Your task to perform on an android device: check google app version Image 0: 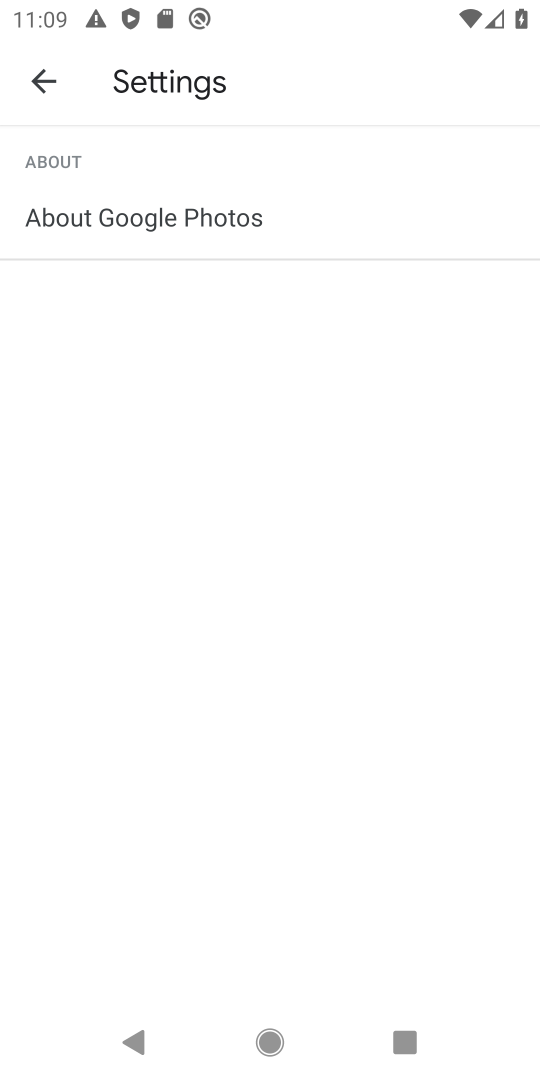
Step 0: press home button
Your task to perform on an android device: check google app version Image 1: 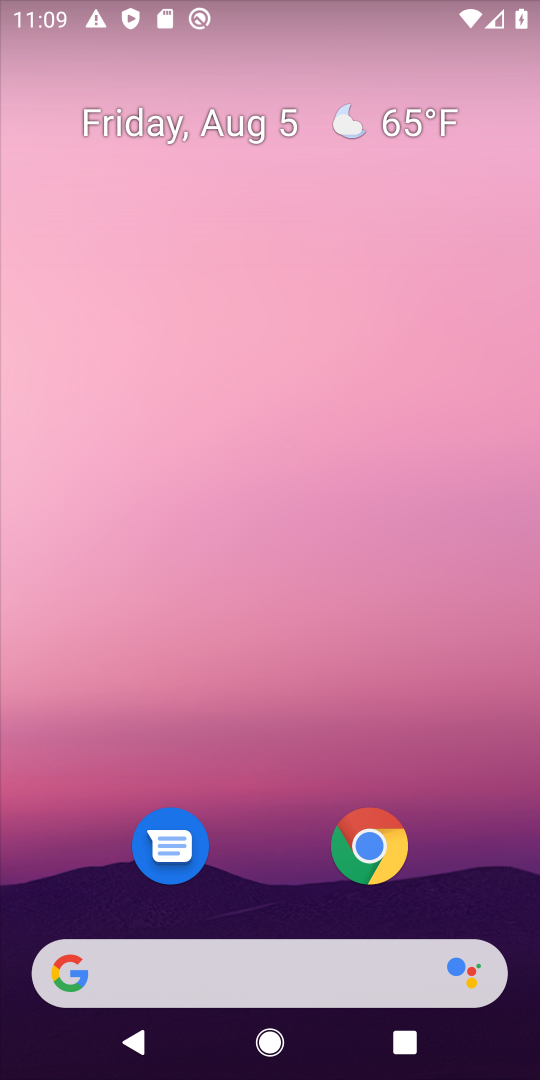
Step 1: click (259, 980)
Your task to perform on an android device: check google app version Image 2: 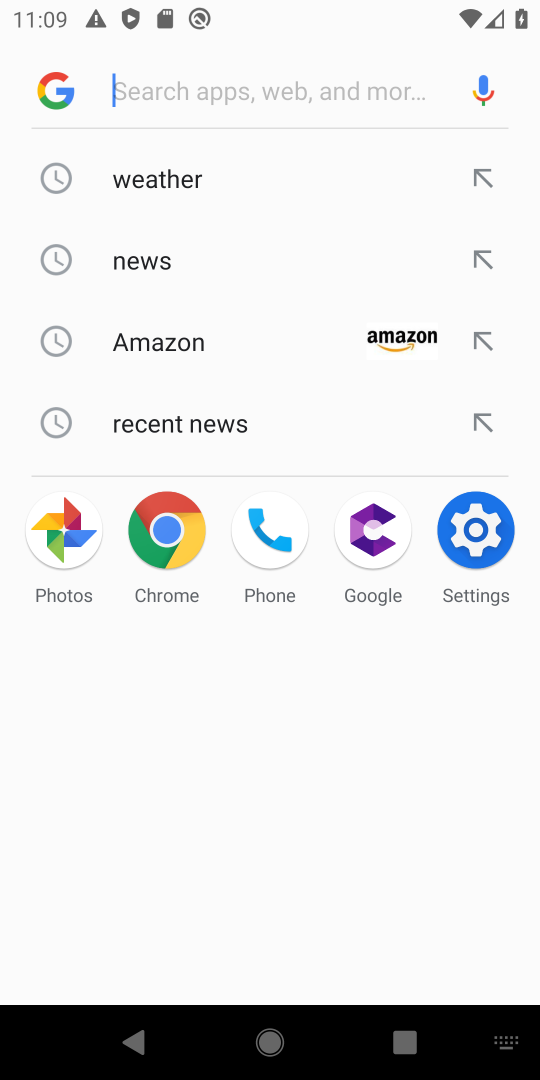
Step 2: click (46, 84)
Your task to perform on an android device: check google app version Image 3: 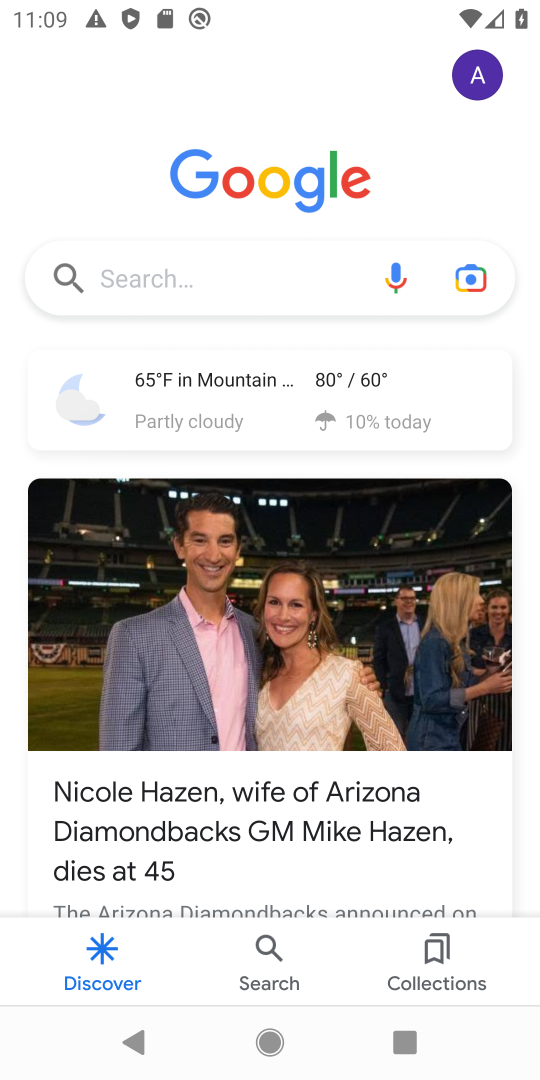
Step 3: drag from (373, 964) to (198, 958)
Your task to perform on an android device: check google app version Image 4: 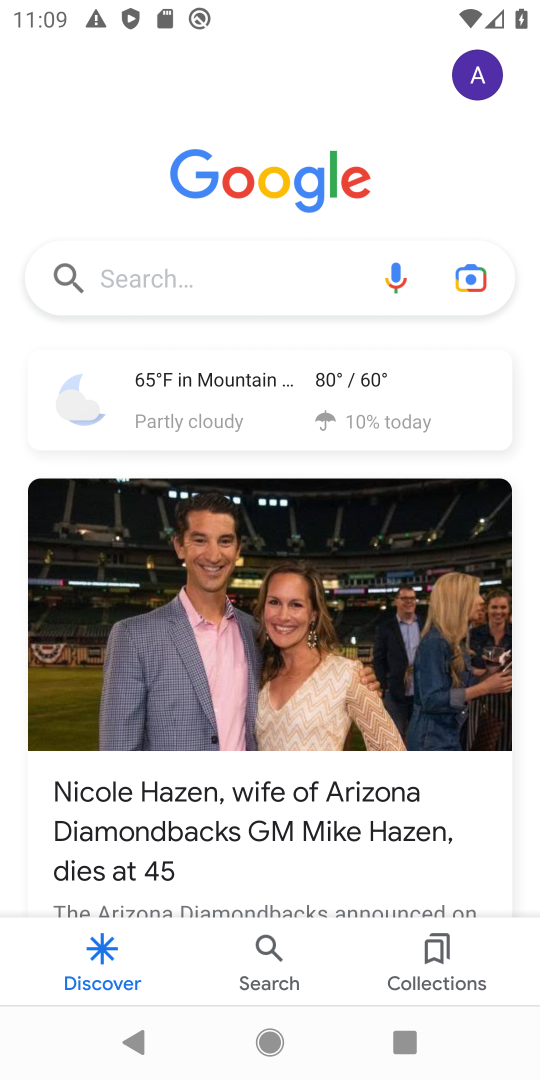
Step 4: drag from (369, 946) to (253, 973)
Your task to perform on an android device: check google app version Image 5: 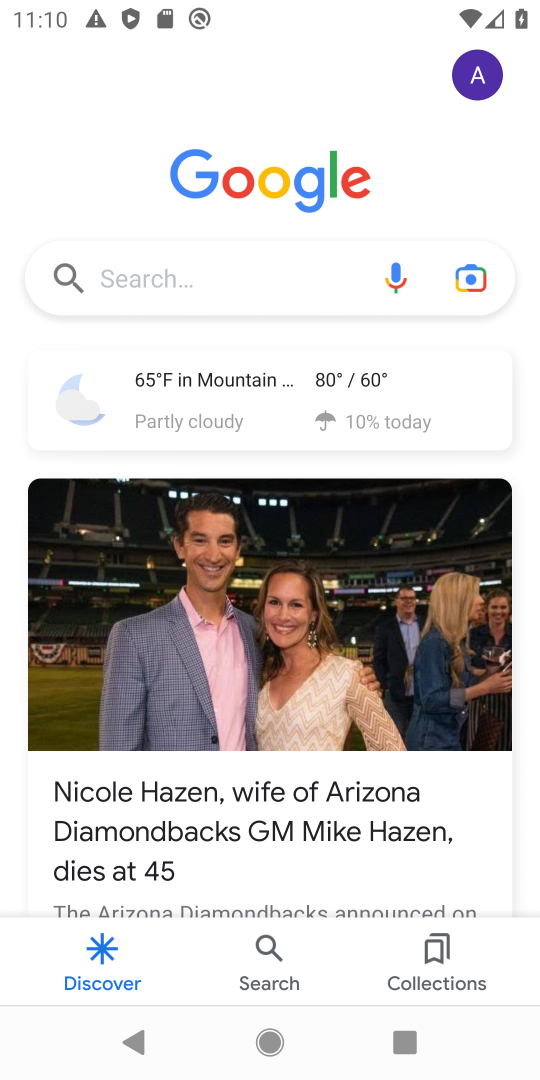
Step 5: click (476, 83)
Your task to perform on an android device: check google app version Image 6: 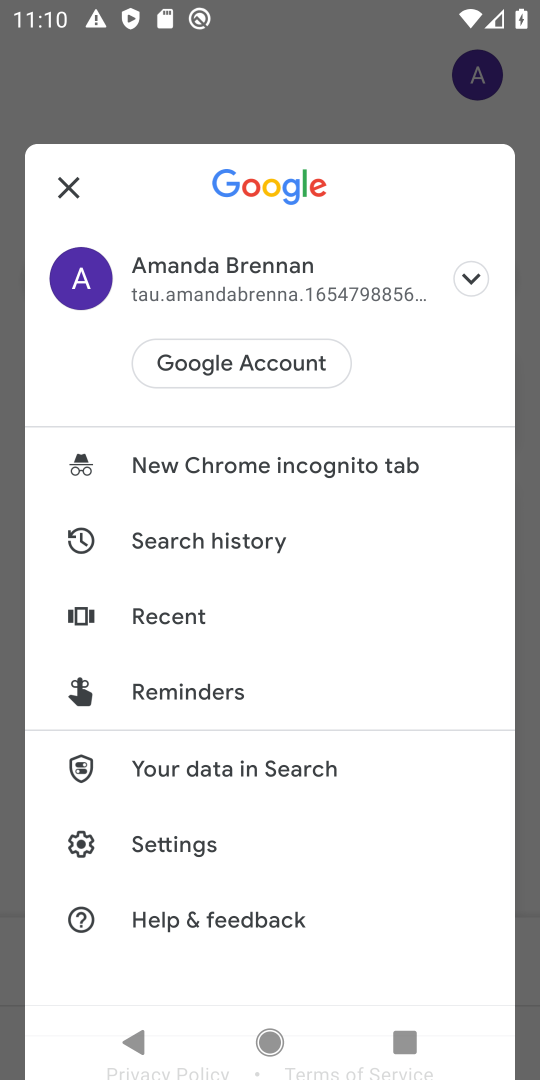
Step 6: click (204, 841)
Your task to perform on an android device: check google app version Image 7: 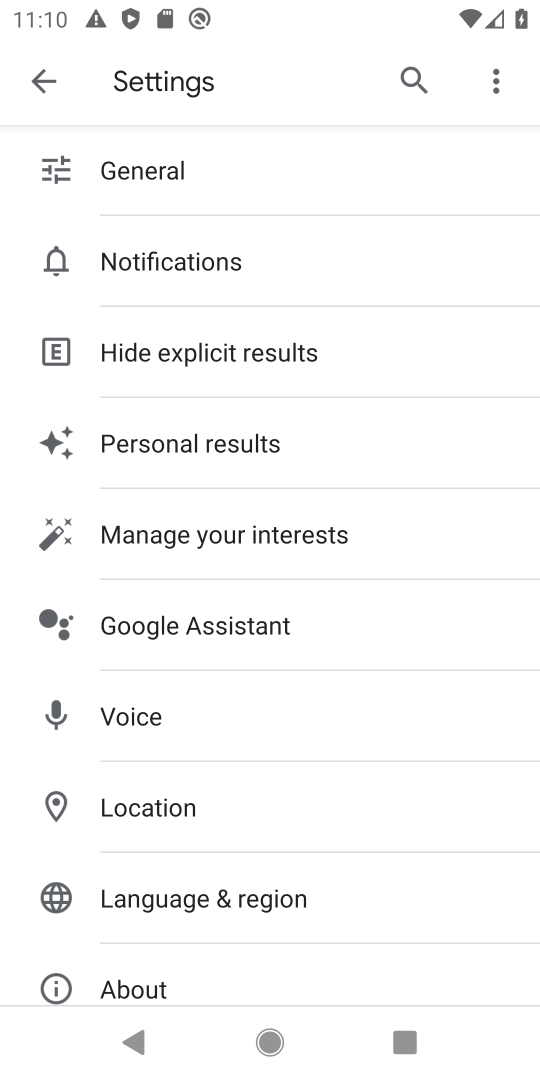
Step 7: drag from (323, 804) to (317, 540)
Your task to perform on an android device: check google app version Image 8: 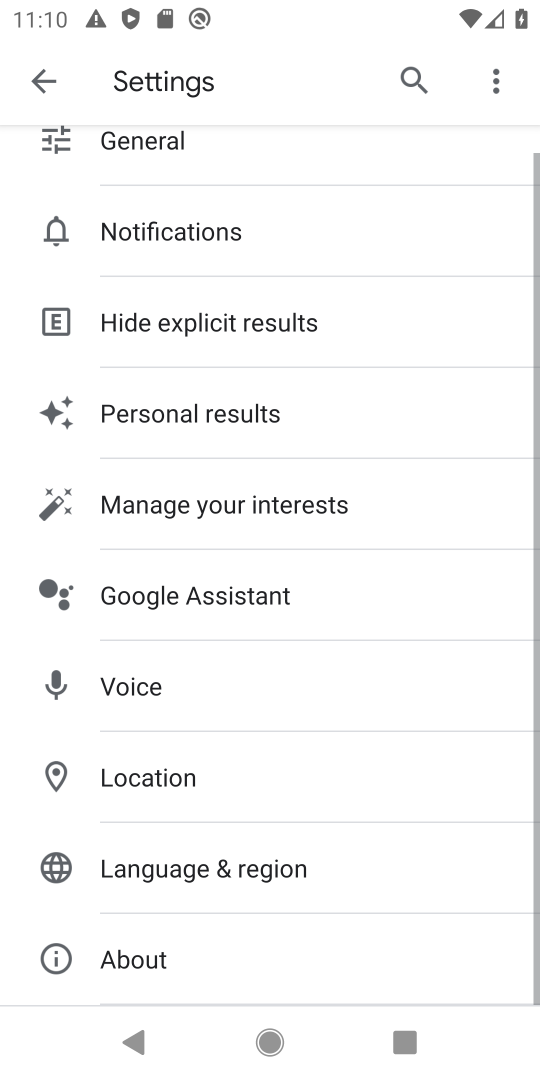
Step 8: click (164, 950)
Your task to perform on an android device: check google app version Image 9: 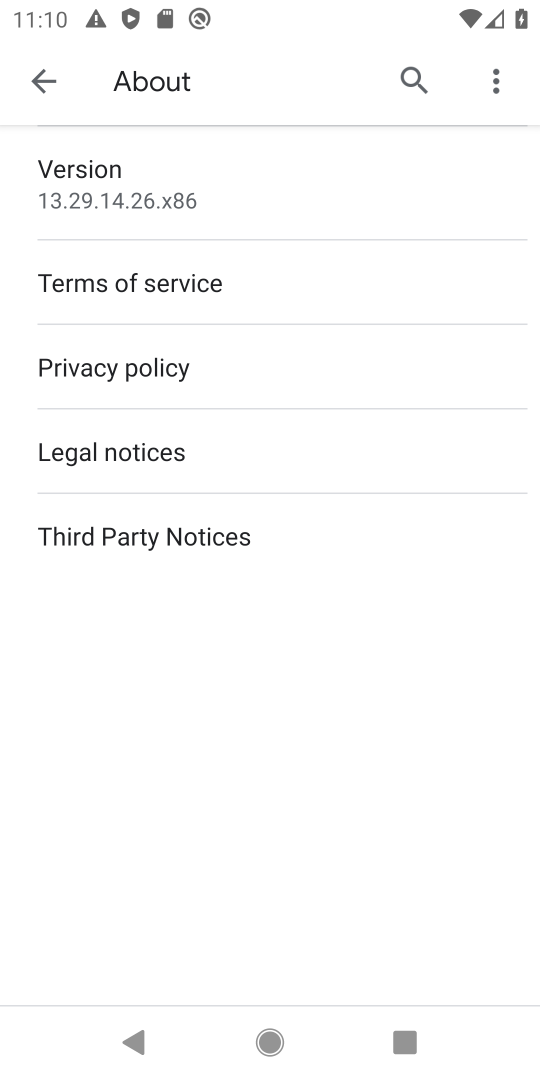
Step 9: task complete